Your task to perform on an android device: turn off translation in the chrome app Image 0: 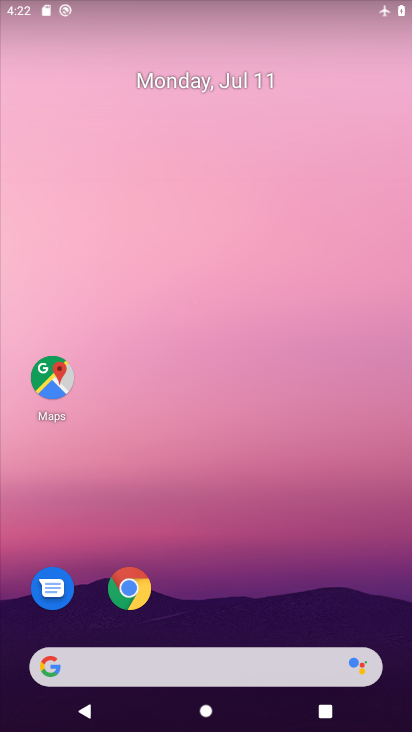
Step 0: drag from (357, 606) to (342, 101)
Your task to perform on an android device: turn off translation in the chrome app Image 1: 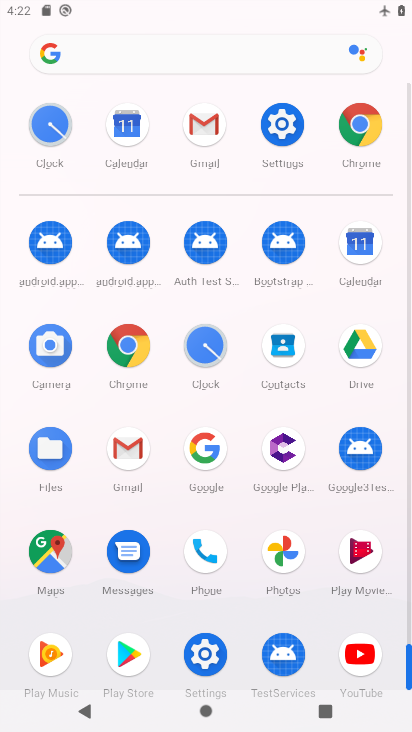
Step 1: click (133, 346)
Your task to perform on an android device: turn off translation in the chrome app Image 2: 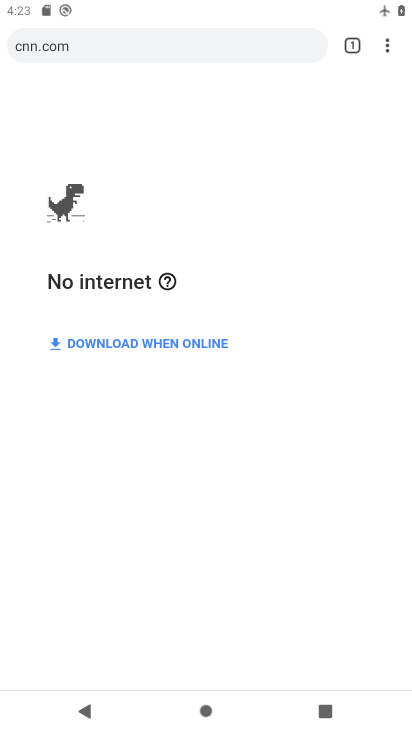
Step 2: click (387, 49)
Your task to perform on an android device: turn off translation in the chrome app Image 3: 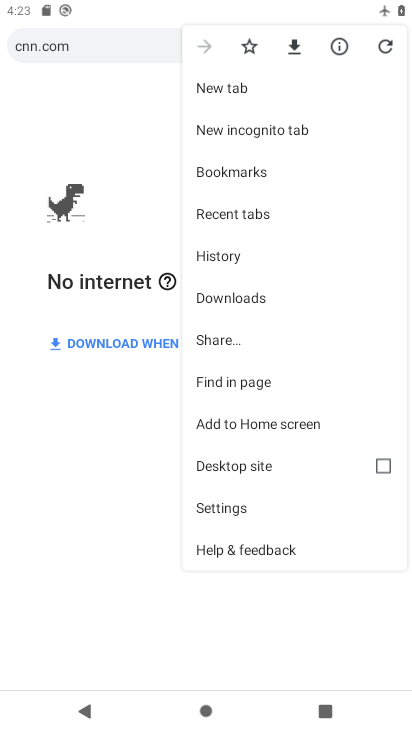
Step 3: click (279, 511)
Your task to perform on an android device: turn off translation in the chrome app Image 4: 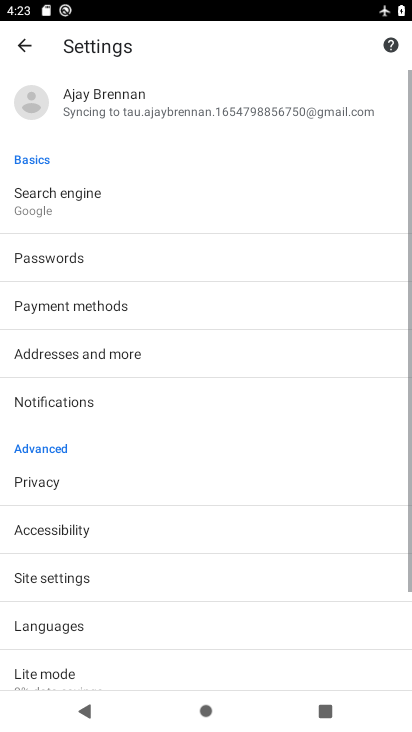
Step 4: drag from (279, 511) to (271, 432)
Your task to perform on an android device: turn off translation in the chrome app Image 5: 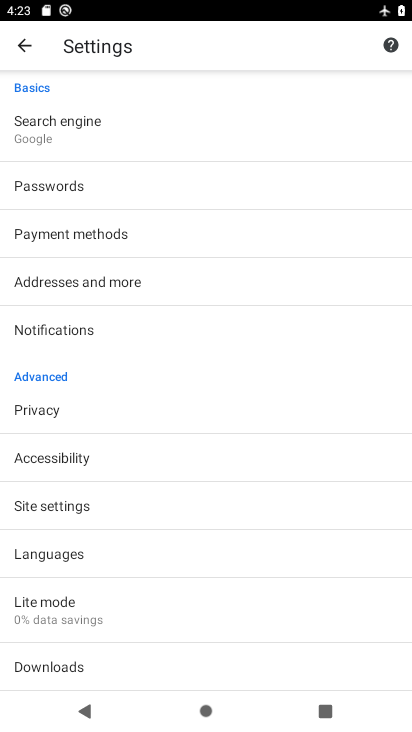
Step 5: drag from (273, 487) to (278, 398)
Your task to perform on an android device: turn off translation in the chrome app Image 6: 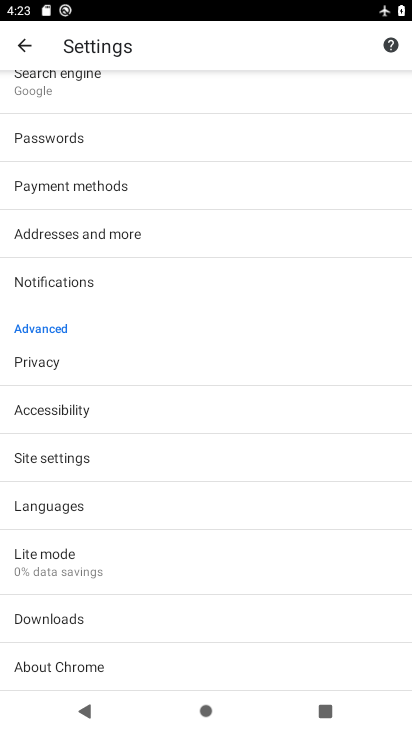
Step 6: drag from (276, 487) to (286, 391)
Your task to perform on an android device: turn off translation in the chrome app Image 7: 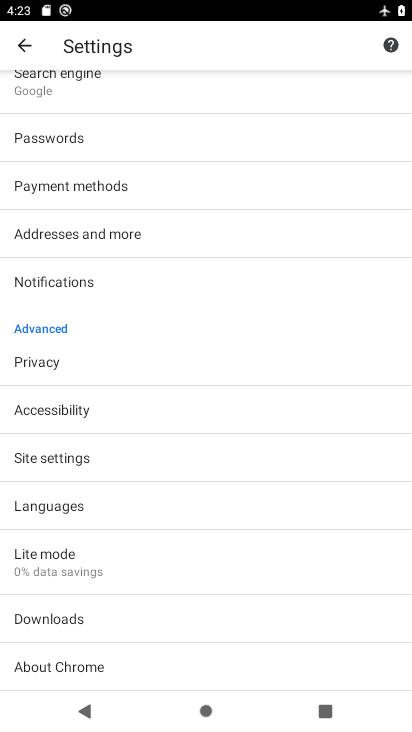
Step 7: click (276, 504)
Your task to perform on an android device: turn off translation in the chrome app Image 8: 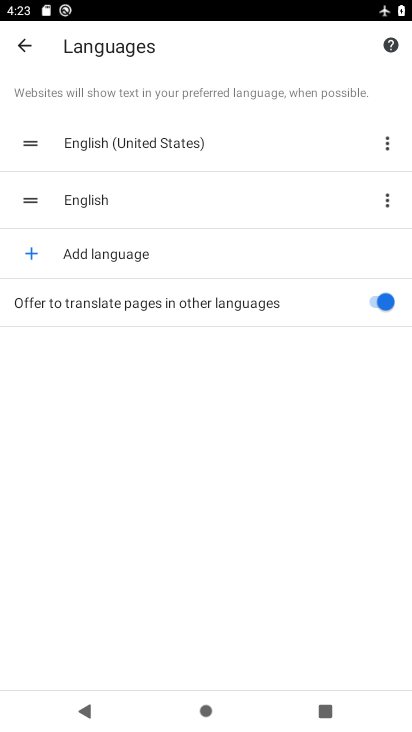
Step 8: click (383, 300)
Your task to perform on an android device: turn off translation in the chrome app Image 9: 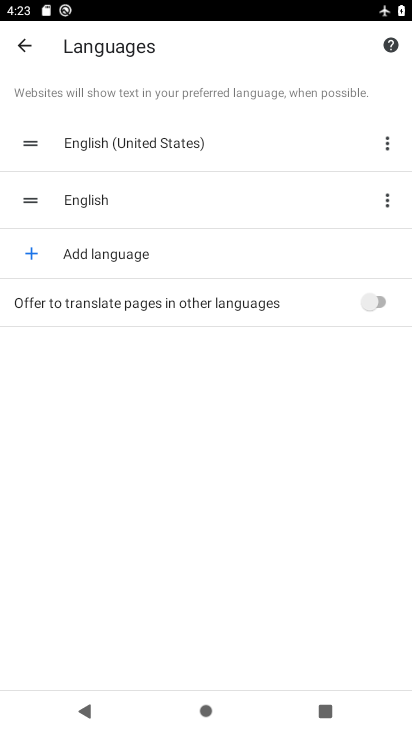
Step 9: task complete